Your task to perform on an android device: Go to Yahoo.com Image 0: 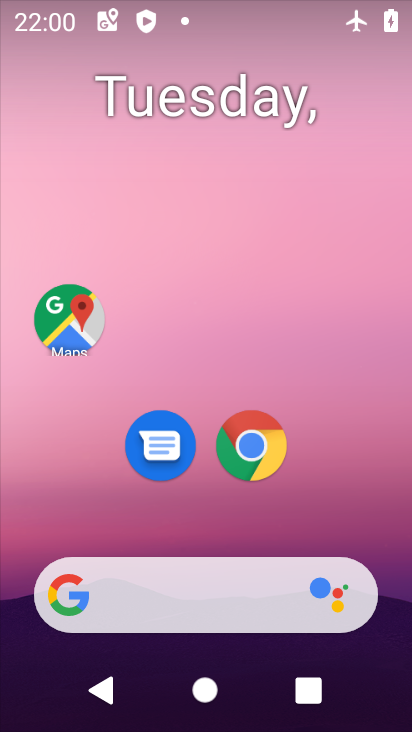
Step 0: click (271, 454)
Your task to perform on an android device: Go to Yahoo.com Image 1: 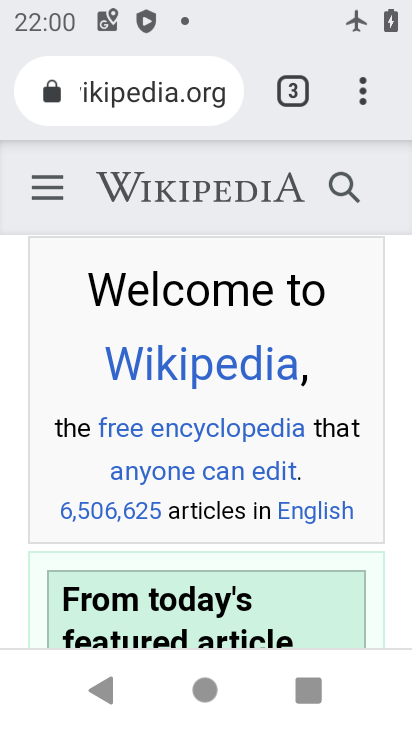
Step 1: click (298, 121)
Your task to perform on an android device: Go to Yahoo.com Image 2: 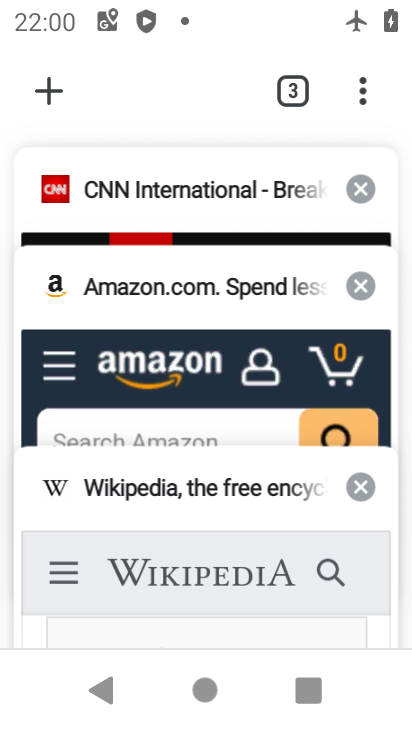
Step 2: click (32, 94)
Your task to perform on an android device: Go to Yahoo.com Image 3: 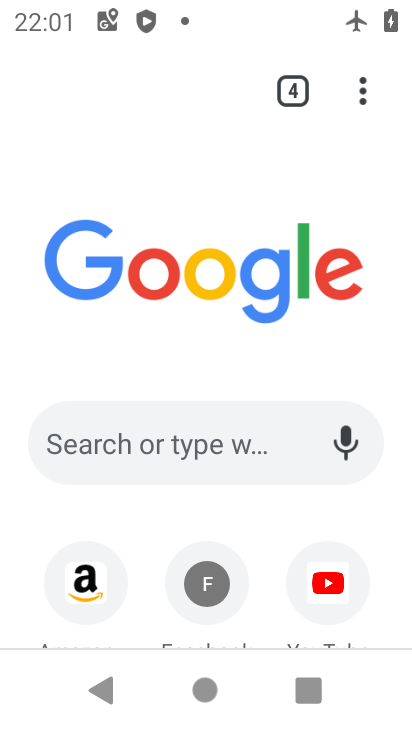
Step 3: drag from (389, 583) to (345, 169)
Your task to perform on an android device: Go to Yahoo.com Image 4: 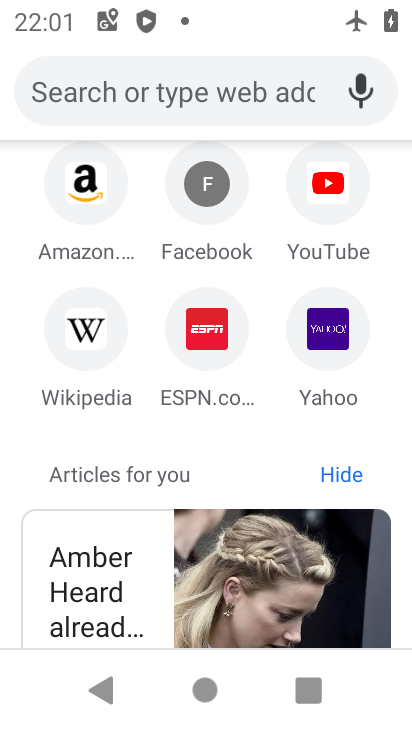
Step 4: click (346, 316)
Your task to perform on an android device: Go to Yahoo.com Image 5: 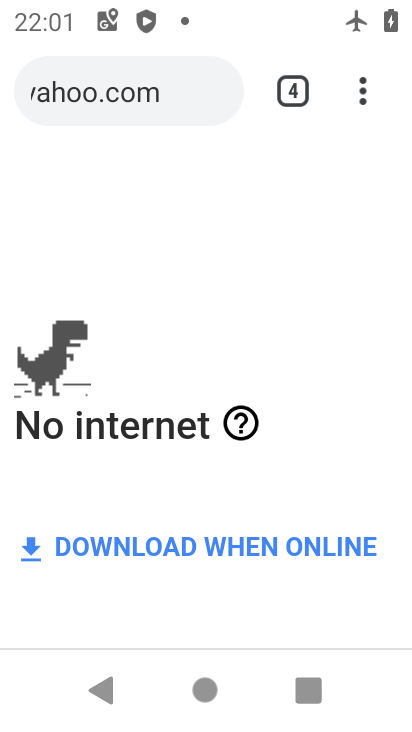
Step 5: task complete